Your task to perform on an android device: turn vacation reply on in the gmail app Image 0: 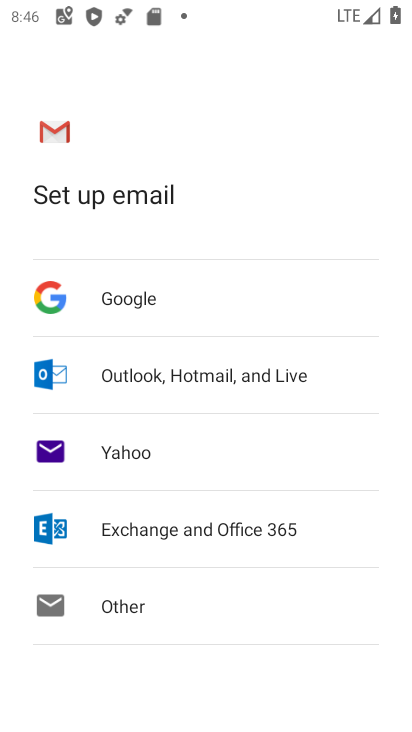
Step 0: press home button
Your task to perform on an android device: turn vacation reply on in the gmail app Image 1: 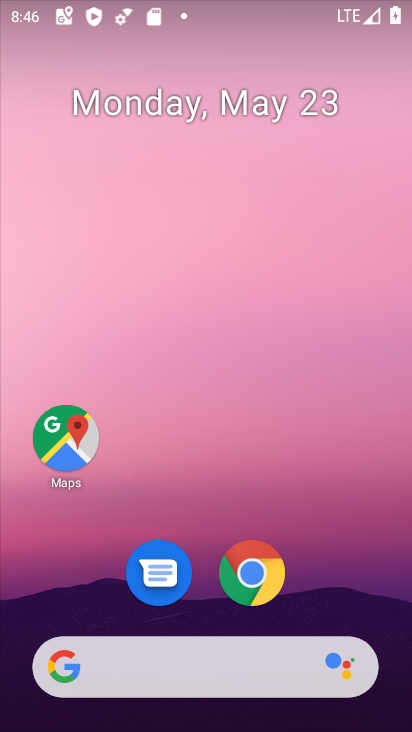
Step 1: drag from (236, 466) to (286, 12)
Your task to perform on an android device: turn vacation reply on in the gmail app Image 2: 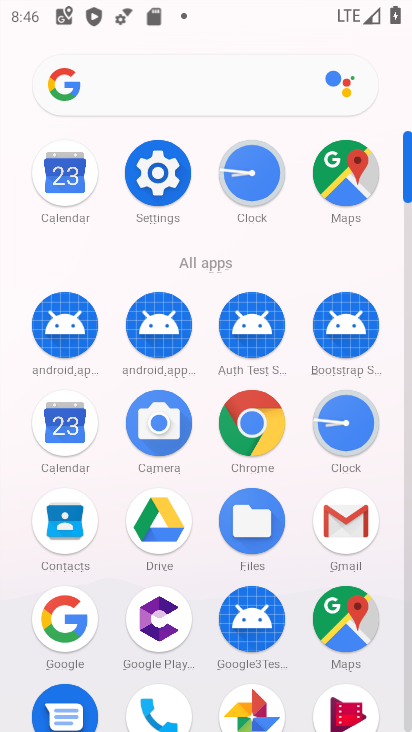
Step 2: click (339, 516)
Your task to perform on an android device: turn vacation reply on in the gmail app Image 3: 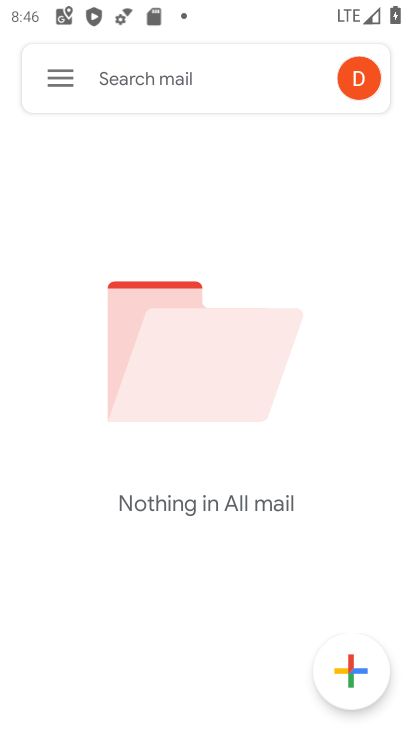
Step 3: click (64, 78)
Your task to perform on an android device: turn vacation reply on in the gmail app Image 4: 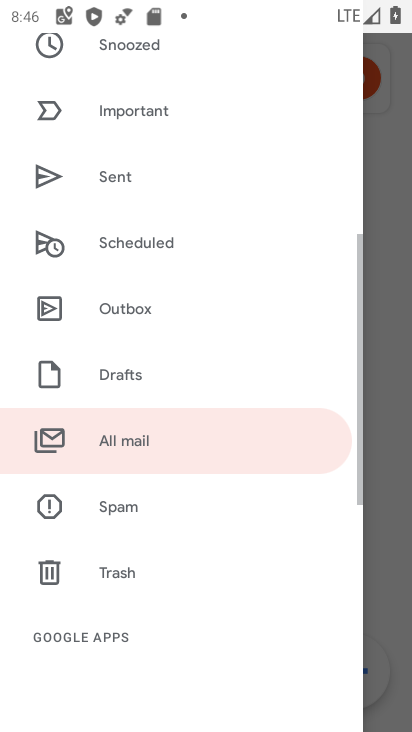
Step 4: drag from (174, 499) to (208, 226)
Your task to perform on an android device: turn vacation reply on in the gmail app Image 5: 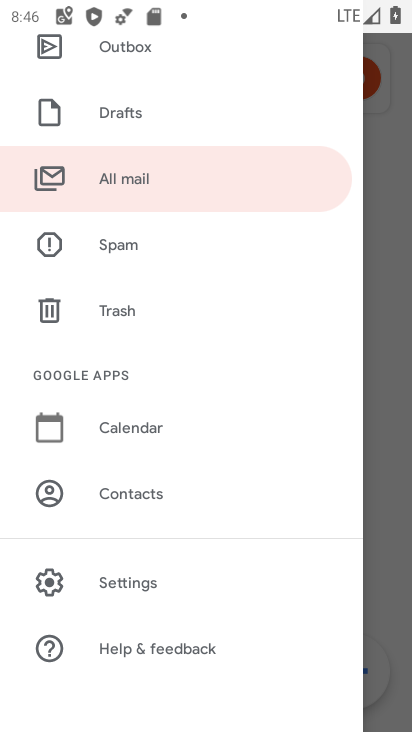
Step 5: click (140, 563)
Your task to perform on an android device: turn vacation reply on in the gmail app Image 6: 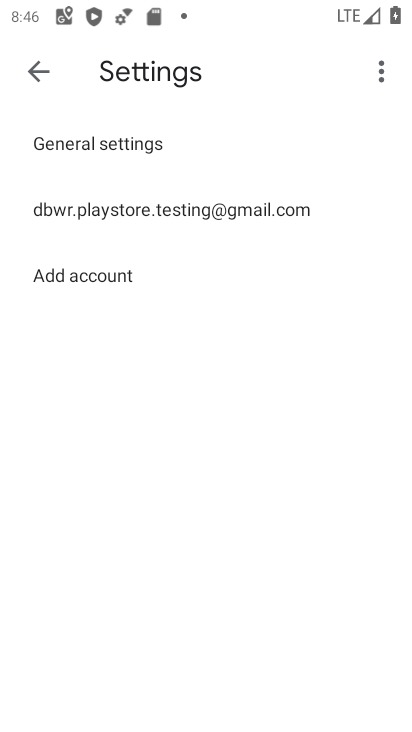
Step 6: click (265, 206)
Your task to perform on an android device: turn vacation reply on in the gmail app Image 7: 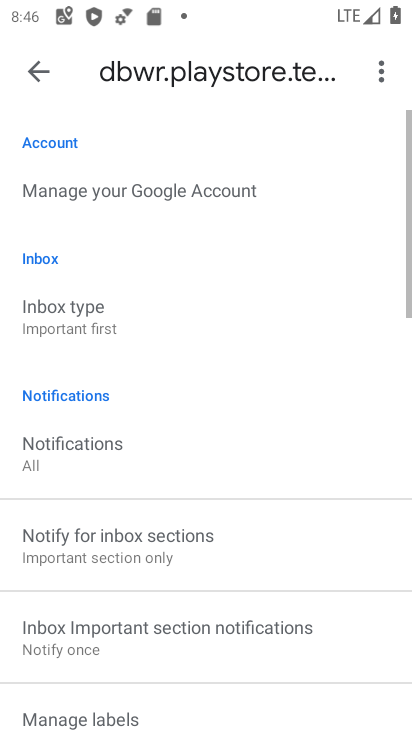
Step 7: drag from (268, 572) to (244, 81)
Your task to perform on an android device: turn vacation reply on in the gmail app Image 8: 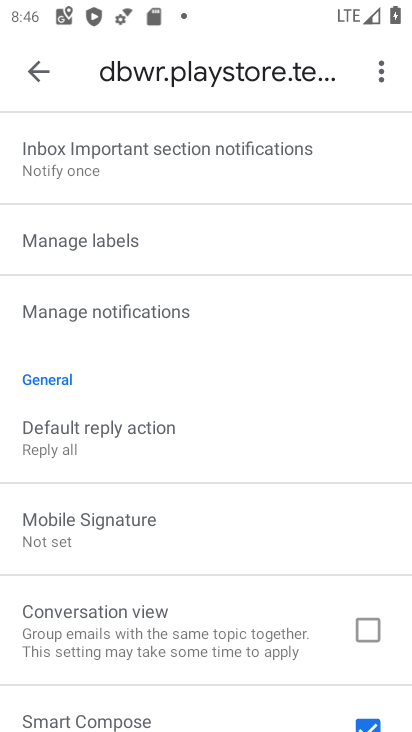
Step 8: drag from (187, 565) to (216, 114)
Your task to perform on an android device: turn vacation reply on in the gmail app Image 9: 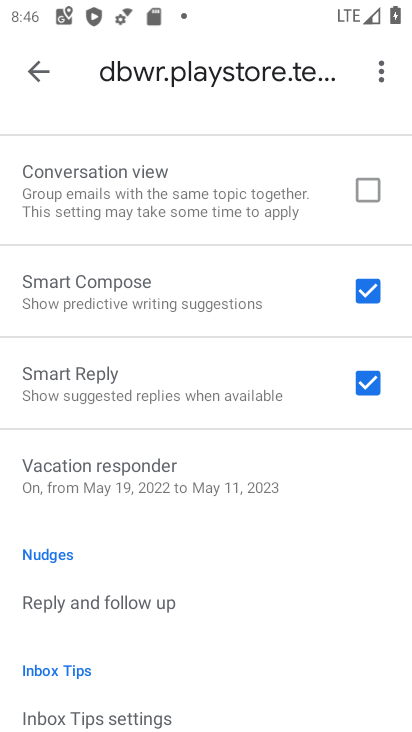
Step 9: click (170, 464)
Your task to perform on an android device: turn vacation reply on in the gmail app Image 10: 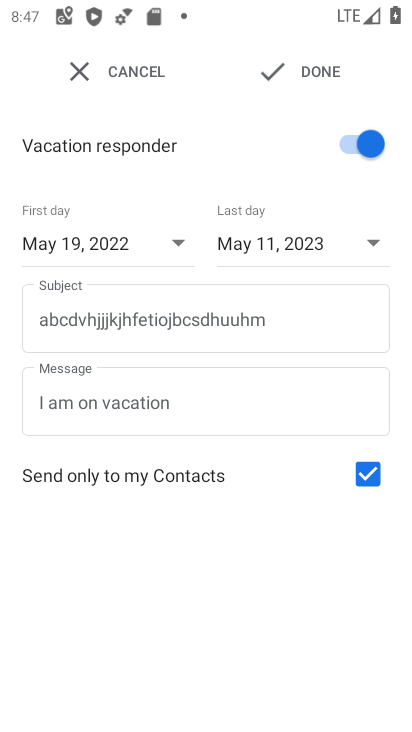
Step 10: task complete